Your task to perform on an android device: Go to calendar. Show me events next week Image 0: 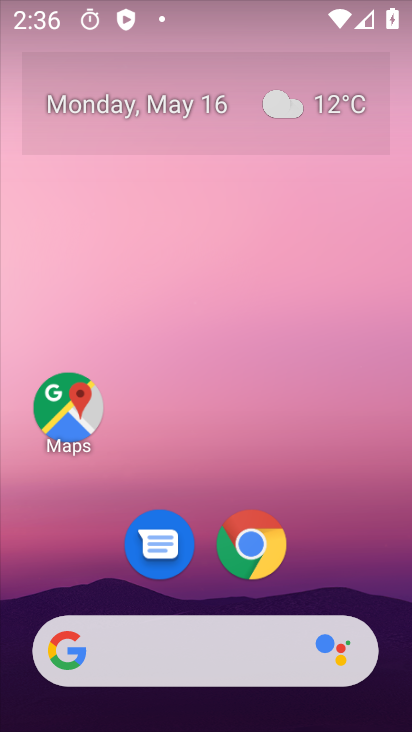
Step 0: drag from (255, 532) to (256, 145)
Your task to perform on an android device: Go to calendar. Show me events next week Image 1: 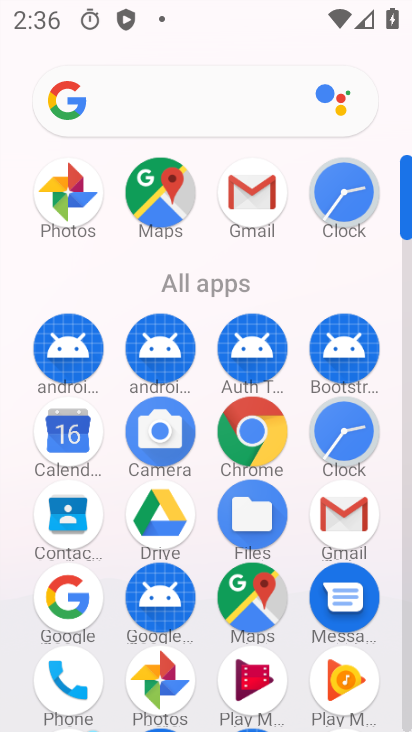
Step 1: click (64, 429)
Your task to perform on an android device: Go to calendar. Show me events next week Image 2: 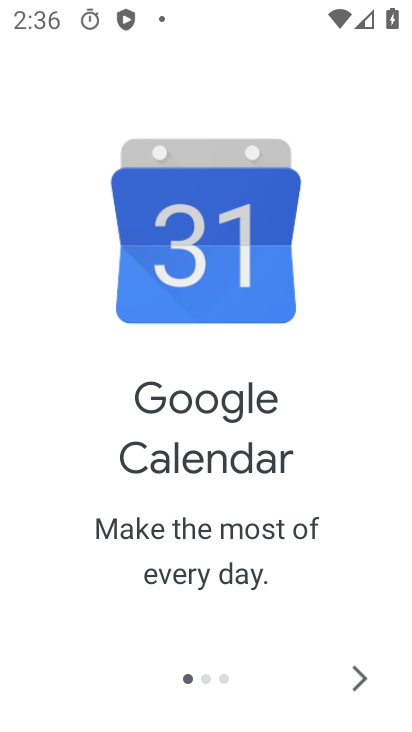
Step 2: click (360, 673)
Your task to perform on an android device: Go to calendar. Show me events next week Image 3: 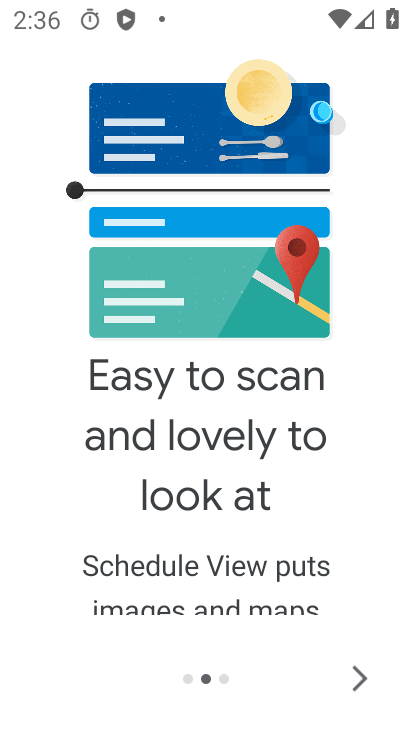
Step 3: click (355, 679)
Your task to perform on an android device: Go to calendar. Show me events next week Image 4: 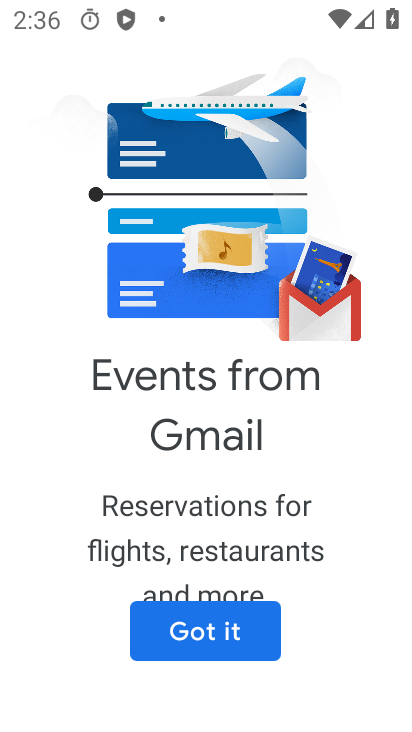
Step 4: click (232, 635)
Your task to perform on an android device: Go to calendar. Show me events next week Image 5: 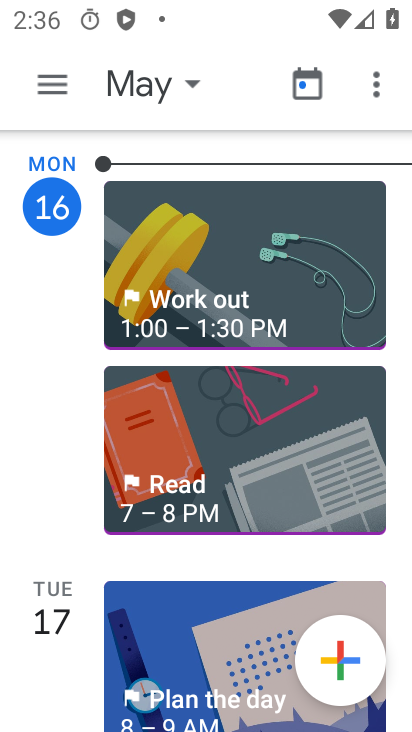
Step 5: click (128, 74)
Your task to perform on an android device: Go to calendar. Show me events next week Image 6: 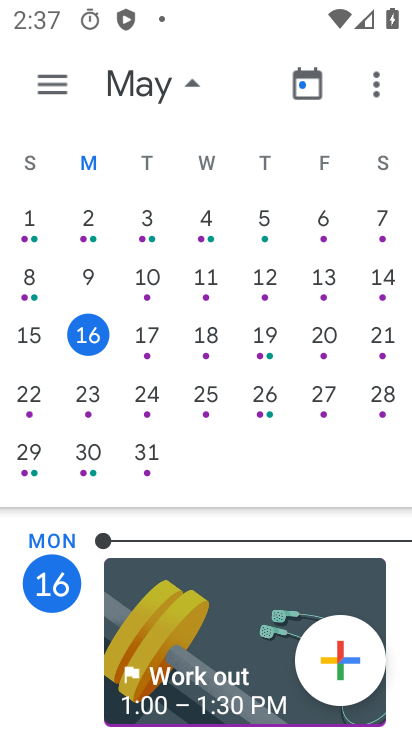
Step 6: click (91, 391)
Your task to perform on an android device: Go to calendar. Show me events next week Image 7: 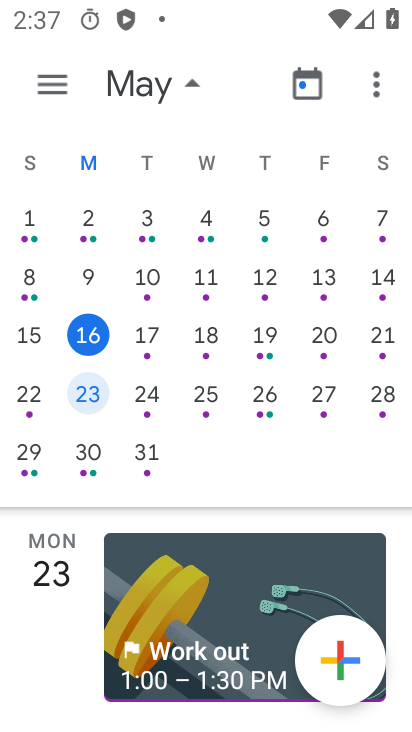
Step 7: click (49, 89)
Your task to perform on an android device: Go to calendar. Show me events next week Image 8: 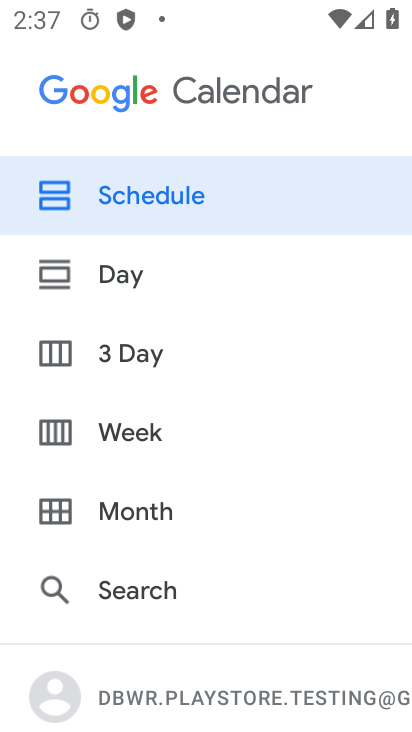
Step 8: click (137, 426)
Your task to perform on an android device: Go to calendar. Show me events next week Image 9: 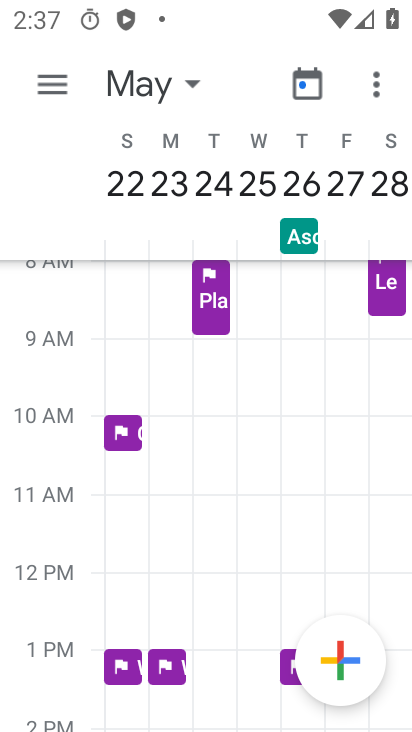
Step 9: task complete